Your task to perform on an android device: Show me popular games on the Play Store Image 0: 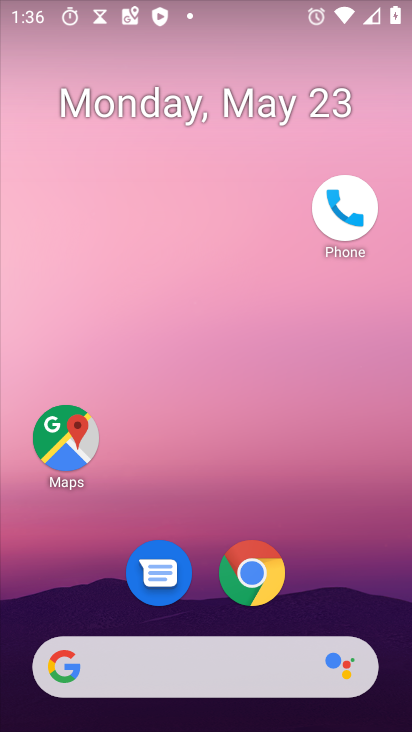
Step 0: press home button
Your task to perform on an android device: Show me popular games on the Play Store Image 1: 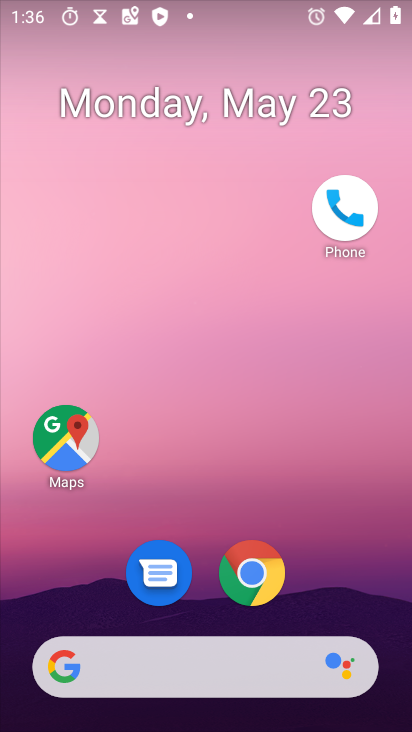
Step 1: drag from (192, 679) to (308, 106)
Your task to perform on an android device: Show me popular games on the Play Store Image 2: 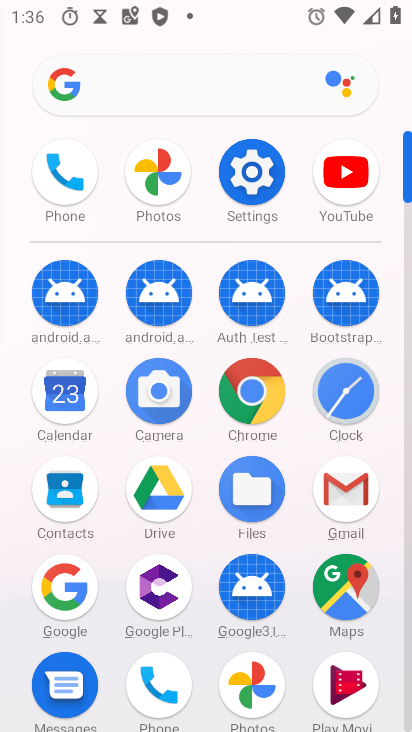
Step 2: drag from (202, 610) to (314, 239)
Your task to perform on an android device: Show me popular games on the Play Store Image 3: 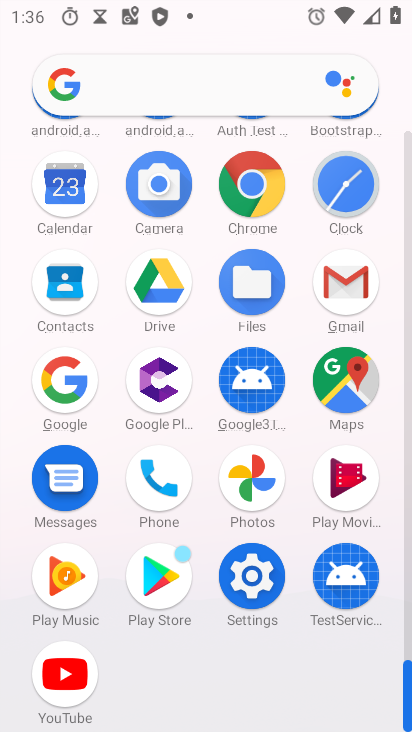
Step 3: click (164, 587)
Your task to perform on an android device: Show me popular games on the Play Store Image 4: 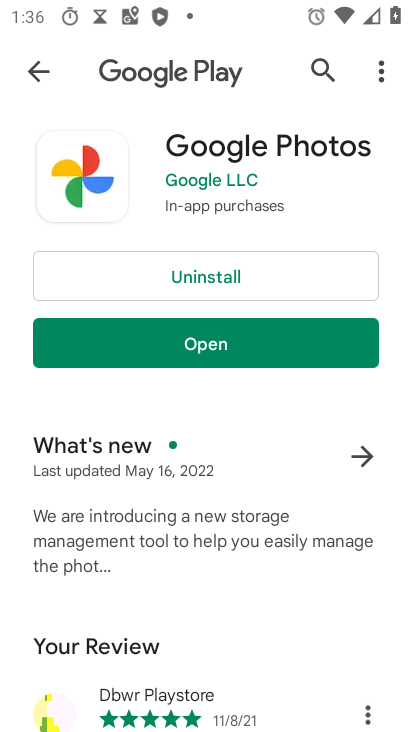
Step 4: click (43, 74)
Your task to perform on an android device: Show me popular games on the Play Store Image 5: 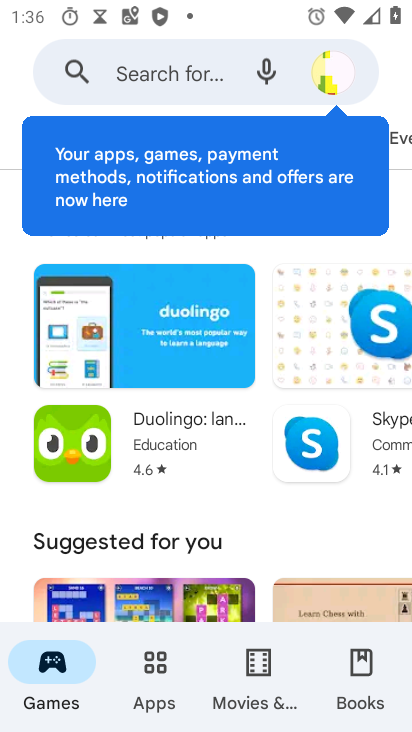
Step 5: drag from (208, 545) to (406, 43)
Your task to perform on an android device: Show me popular games on the Play Store Image 6: 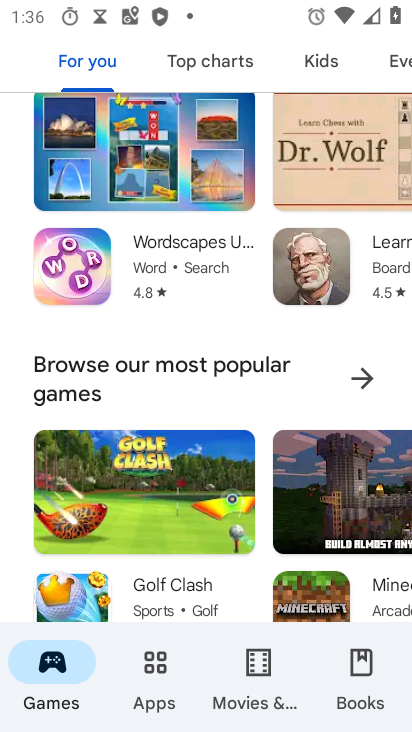
Step 6: click (264, 359)
Your task to perform on an android device: Show me popular games on the Play Store Image 7: 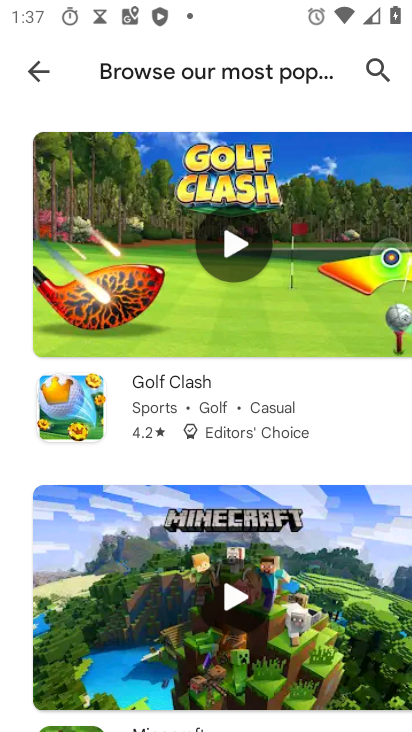
Step 7: task complete